Your task to perform on an android device: open app "Move to iOS" (install if not already installed) Image 0: 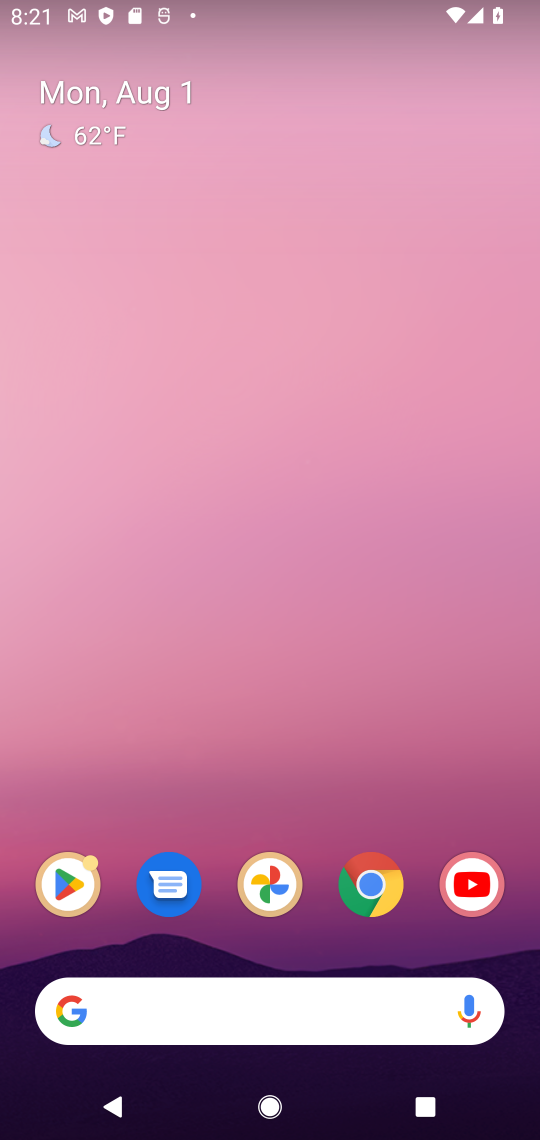
Step 0: click (54, 899)
Your task to perform on an android device: open app "Move to iOS" (install if not already installed) Image 1: 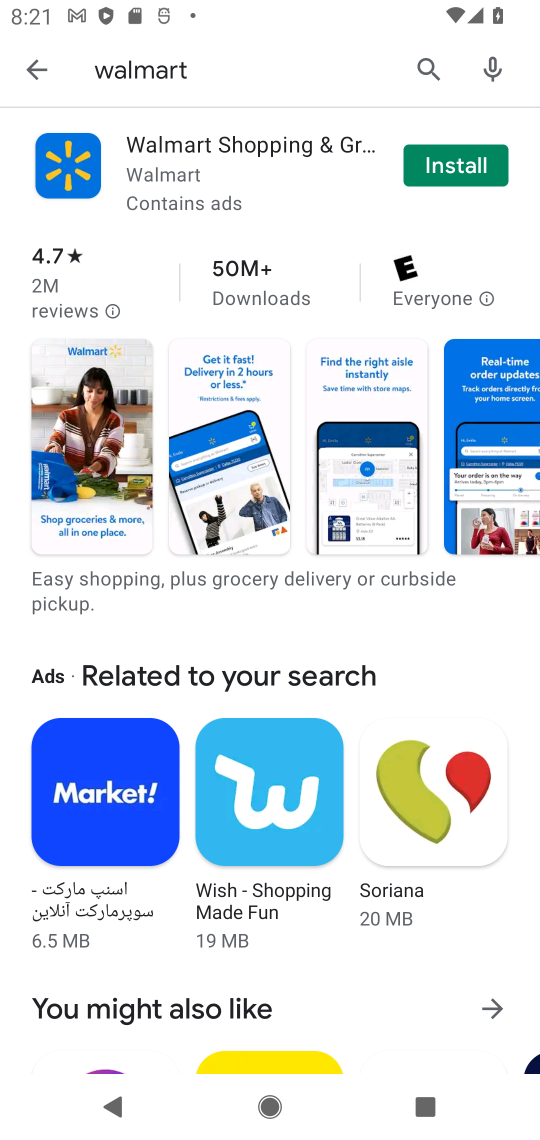
Step 1: click (421, 74)
Your task to perform on an android device: open app "Move to iOS" (install if not already installed) Image 2: 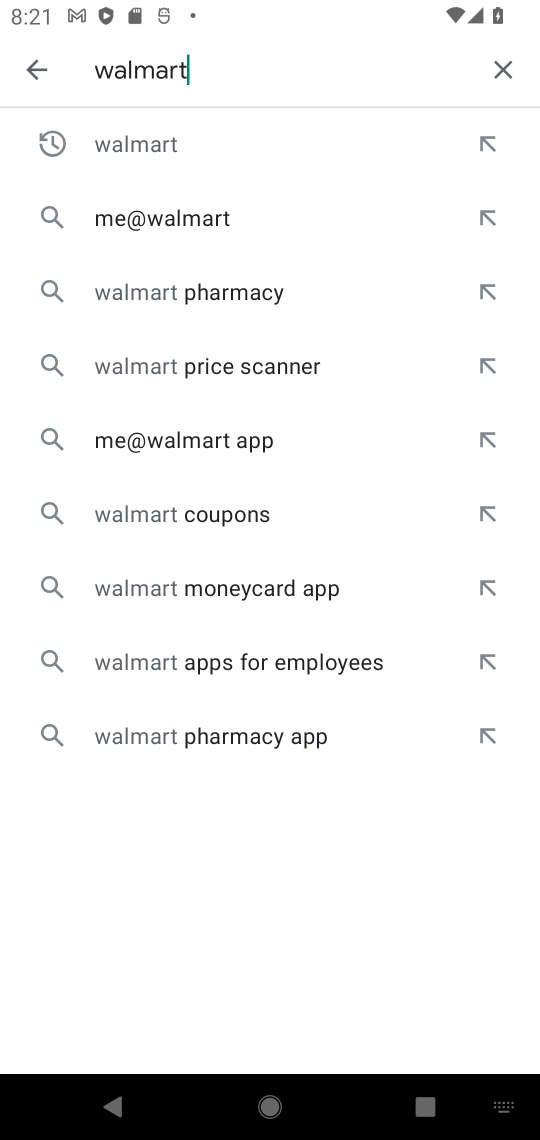
Step 2: click (517, 65)
Your task to perform on an android device: open app "Move to iOS" (install if not already installed) Image 3: 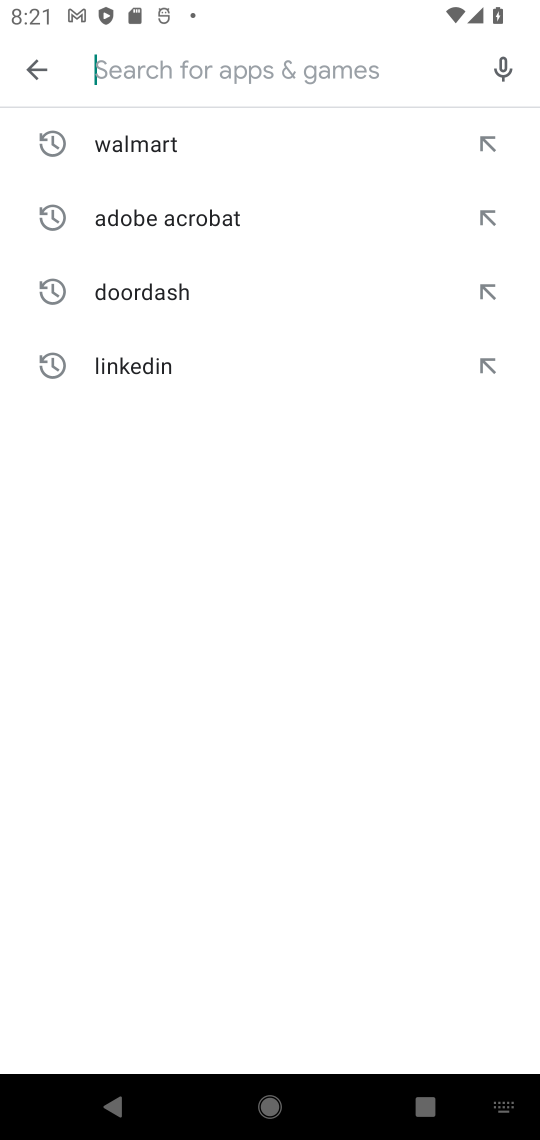
Step 3: type "move to ios"
Your task to perform on an android device: open app "Move to iOS" (install if not already installed) Image 4: 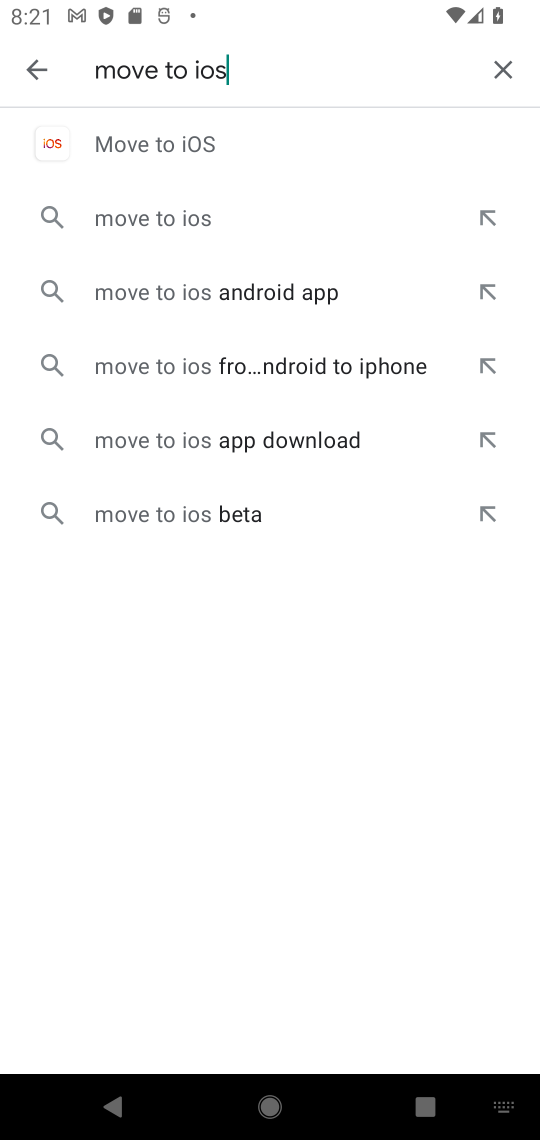
Step 4: click (217, 144)
Your task to perform on an android device: open app "Move to iOS" (install if not already installed) Image 5: 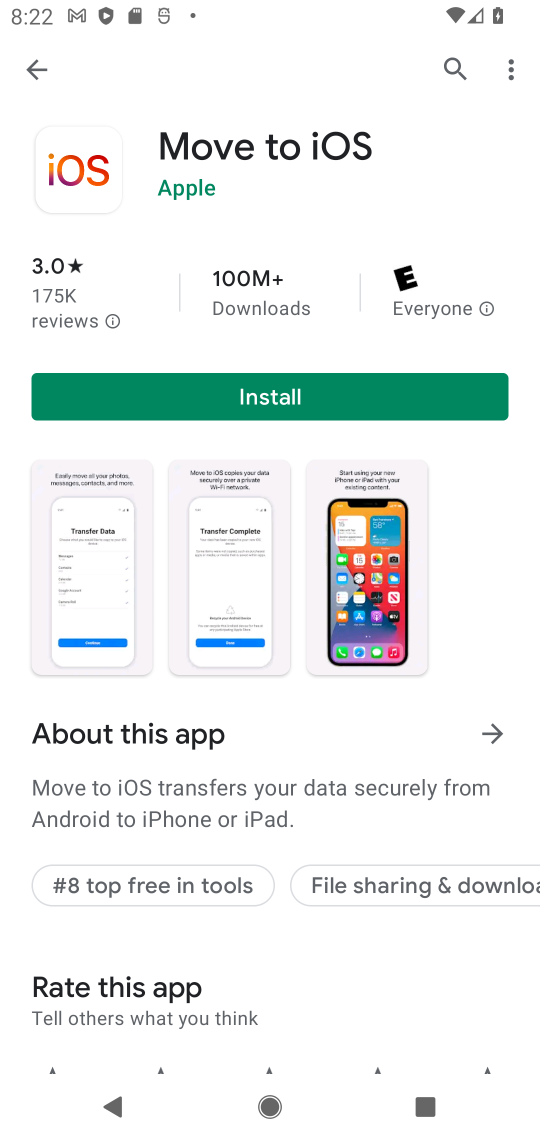
Step 5: click (267, 401)
Your task to perform on an android device: open app "Move to iOS" (install if not already installed) Image 6: 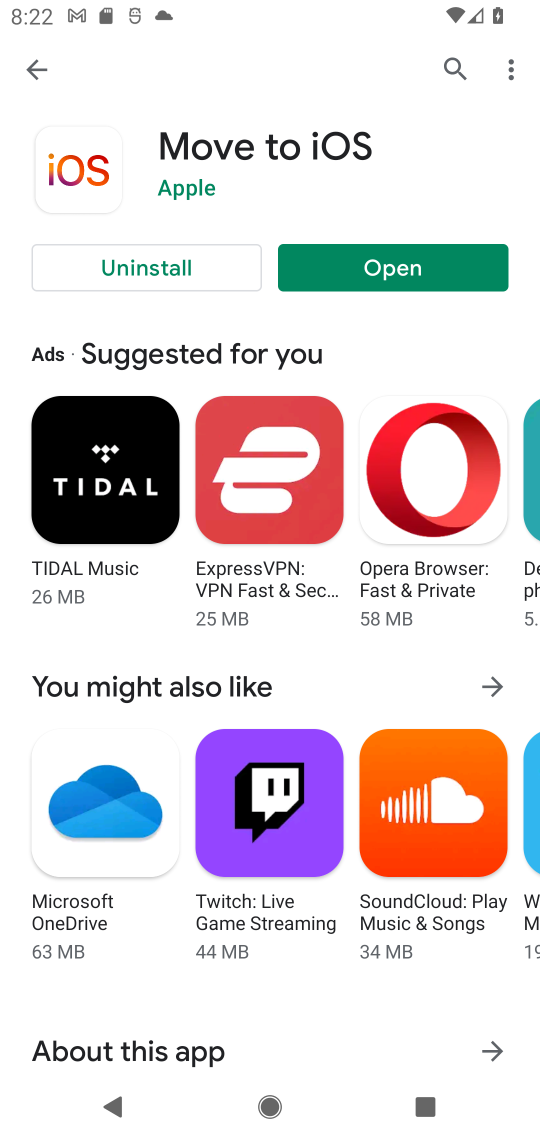
Step 6: task complete